Your task to perform on an android device: Open Reddit.com Image 0: 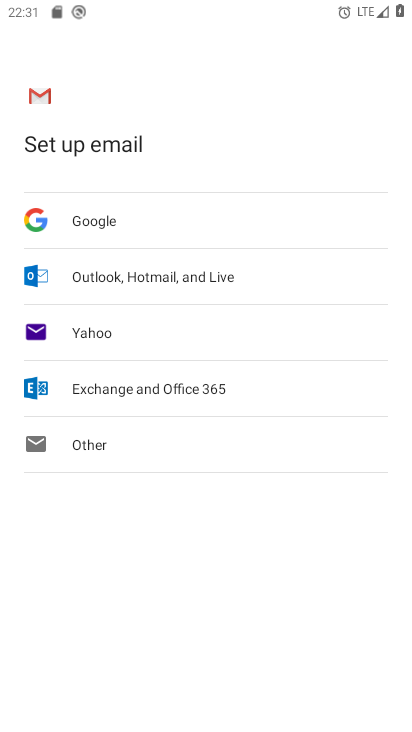
Step 0: press home button
Your task to perform on an android device: Open Reddit.com Image 1: 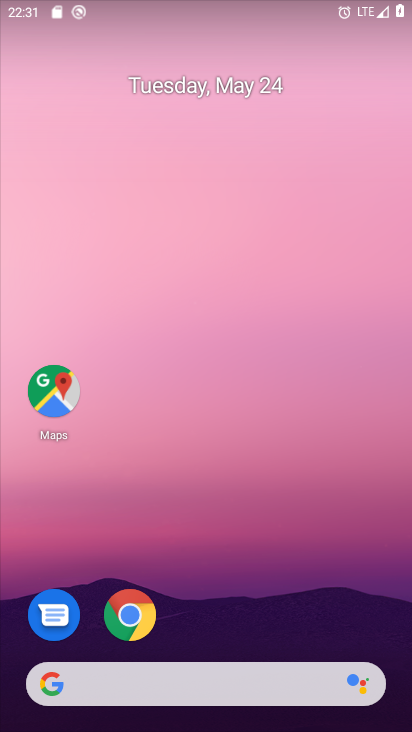
Step 1: click (125, 604)
Your task to perform on an android device: Open Reddit.com Image 2: 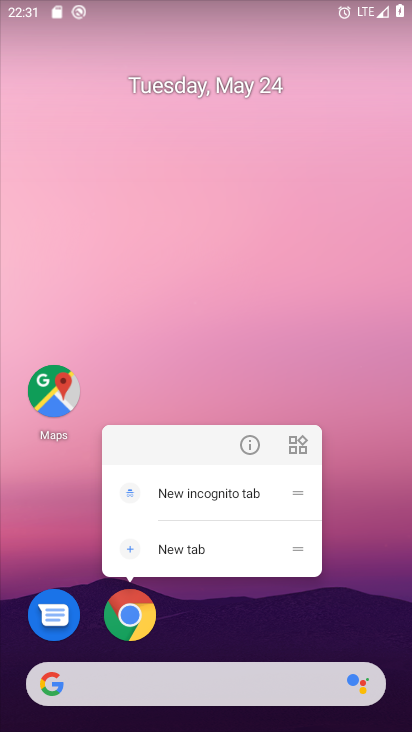
Step 2: click (119, 624)
Your task to perform on an android device: Open Reddit.com Image 3: 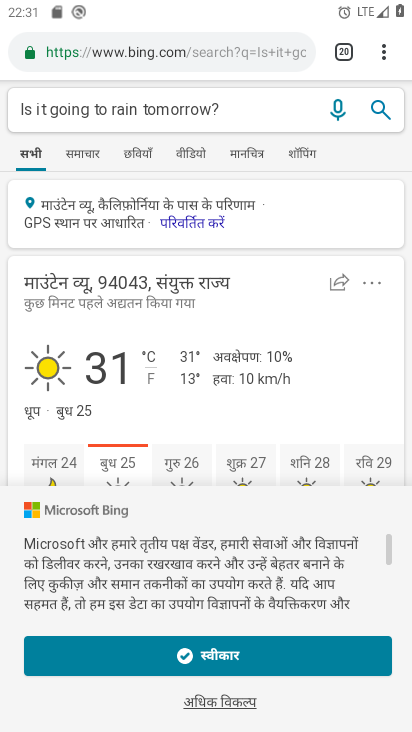
Step 3: click (381, 53)
Your task to perform on an android device: Open Reddit.com Image 4: 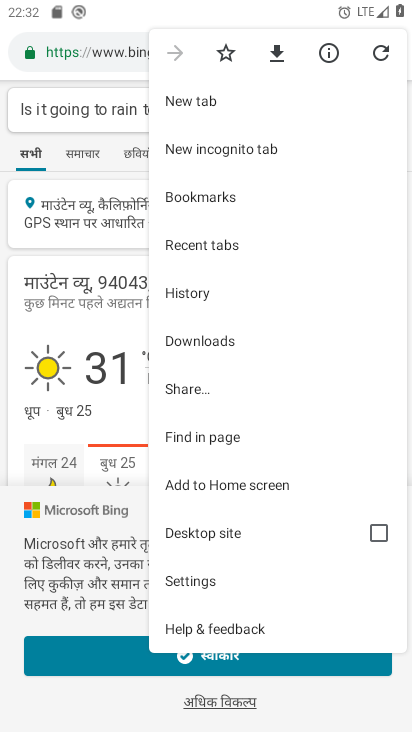
Step 4: click (205, 97)
Your task to perform on an android device: Open Reddit.com Image 5: 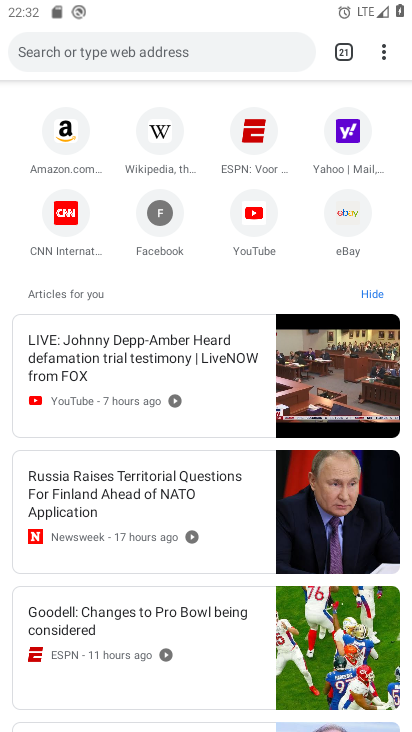
Step 5: click (182, 44)
Your task to perform on an android device: Open Reddit.com Image 6: 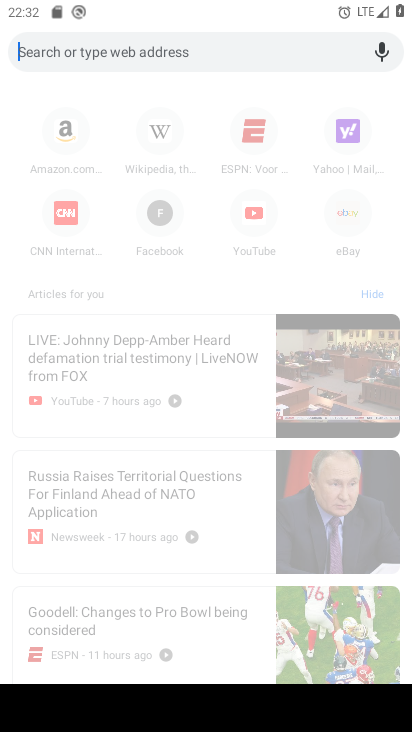
Step 6: type " Reddit.com"
Your task to perform on an android device: Open Reddit.com Image 7: 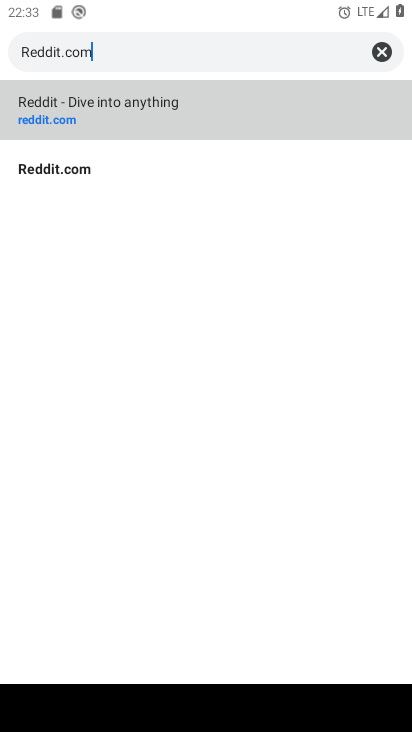
Step 7: click (187, 95)
Your task to perform on an android device: Open Reddit.com Image 8: 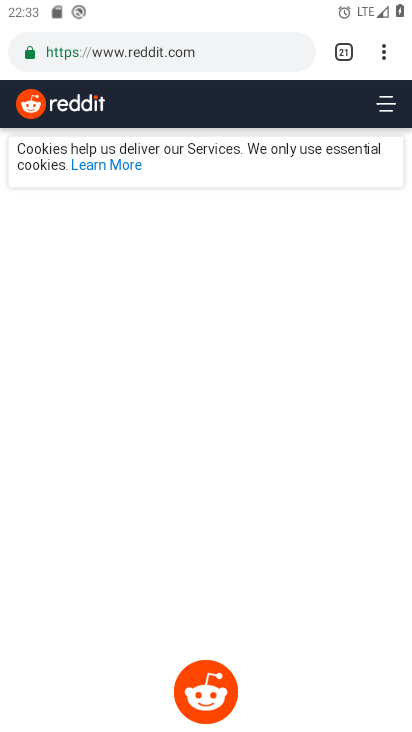
Step 8: task complete